Your task to perform on an android device: Go to internet settings Image 0: 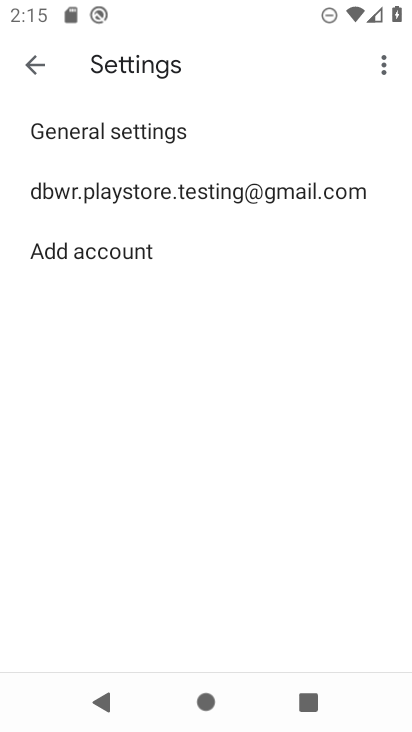
Step 0: press home button
Your task to perform on an android device: Go to internet settings Image 1: 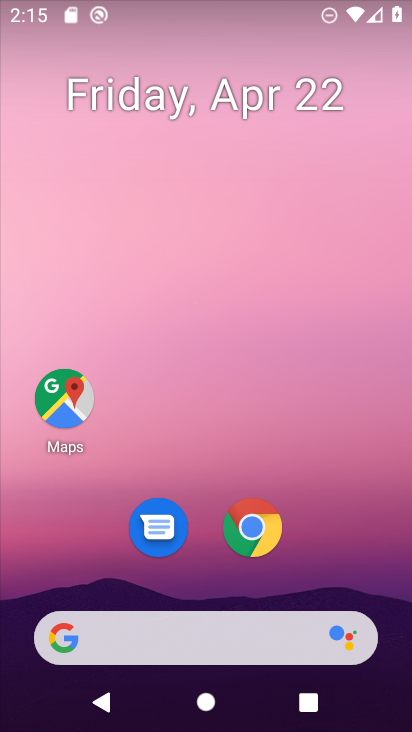
Step 1: drag from (316, 546) to (354, 77)
Your task to perform on an android device: Go to internet settings Image 2: 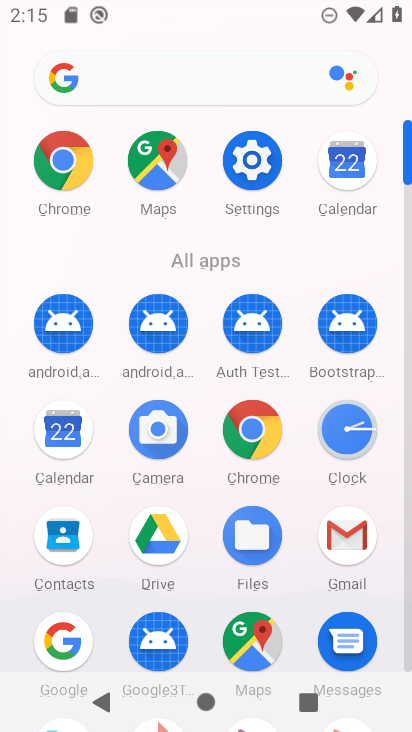
Step 2: click (247, 168)
Your task to perform on an android device: Go to internet settings Image 3: 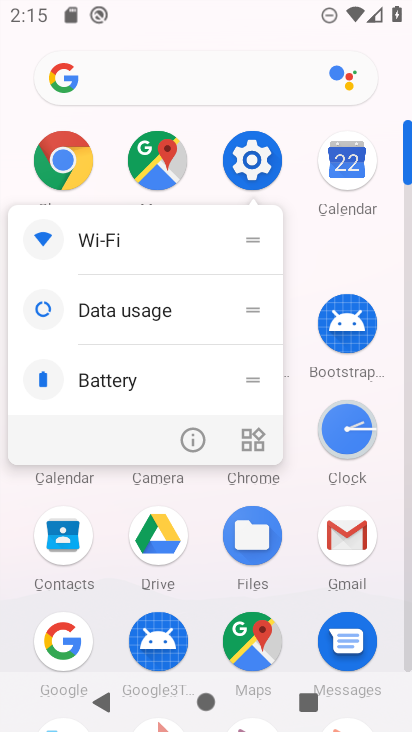
Step 3: click (268, 163)
Your task to perform on an android device: Go to internet settings Image 4: 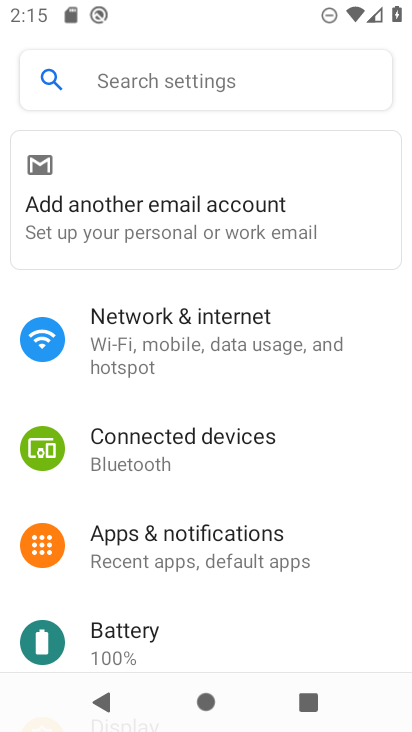
Step 4: click (192, 325)
Your task to perform on an android device: Go to internet settings Image 5: 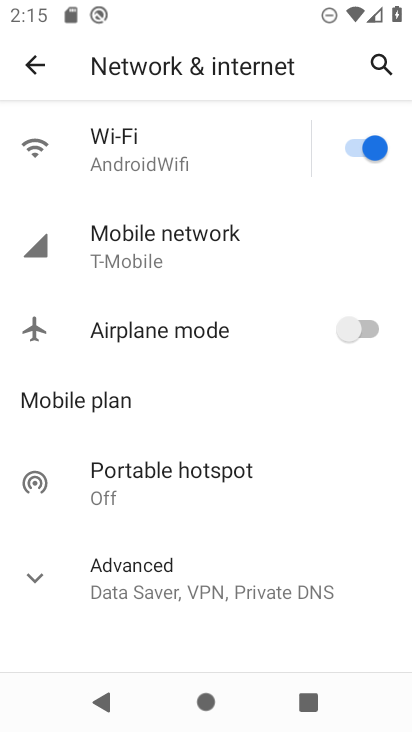
Step 5: task complete